Your task to perform on an android device: star an email in the gmail app Image 0: 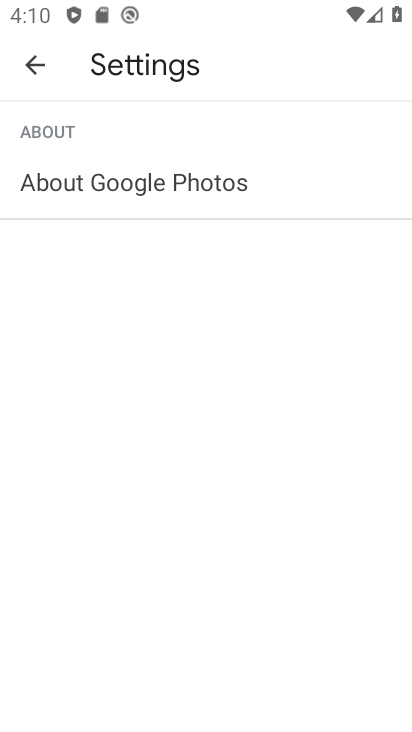
Step 0: press home button
Your task to perform on an android device: star an email in the gmail app Image 1: 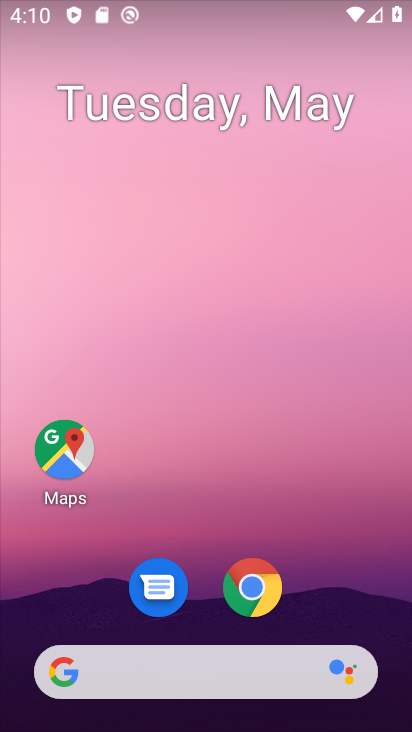
Step 1: drag from (373, 602) to (386, 288)
Your task to perform on an android device: star an email in the gmail app Image 2: 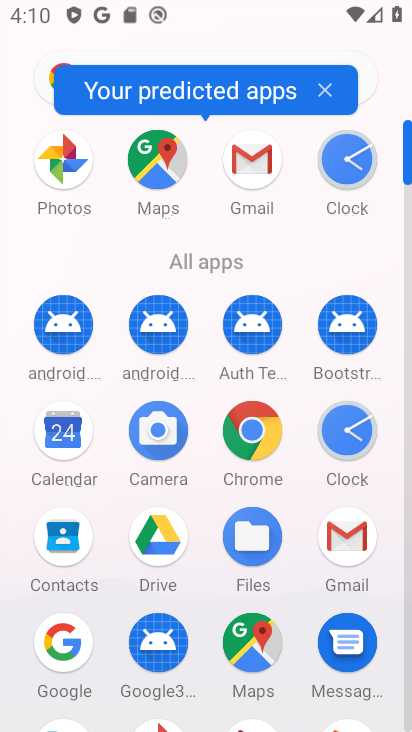
Step 2: click (349, 538)
Your task to perform on an android device: star an email in the gmail app Image 3: 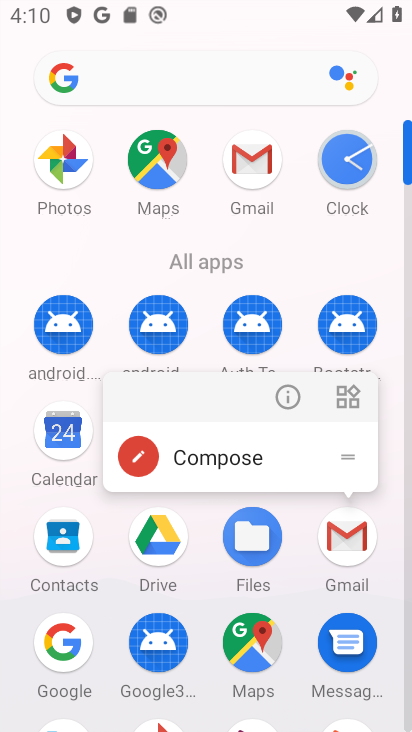
Step 3: click (349, 538)
Your task to perform on an android device: star an email in the gmail app Image 4: 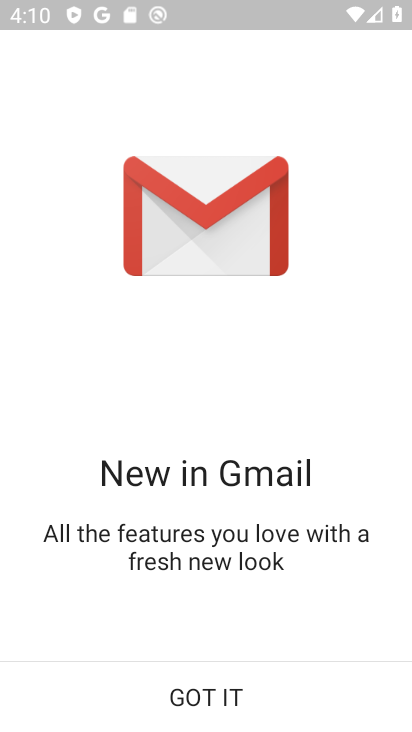
Step 4: click (306, 698)
Your task to perform on an android device: star an email in the gmail app Image 5: 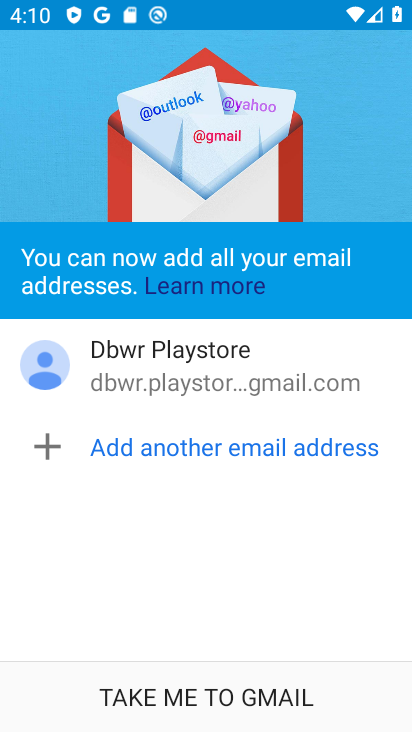
Step 5: click (312, 701)
Your task to perform on an android device: star an email in the gmail app Image 6: 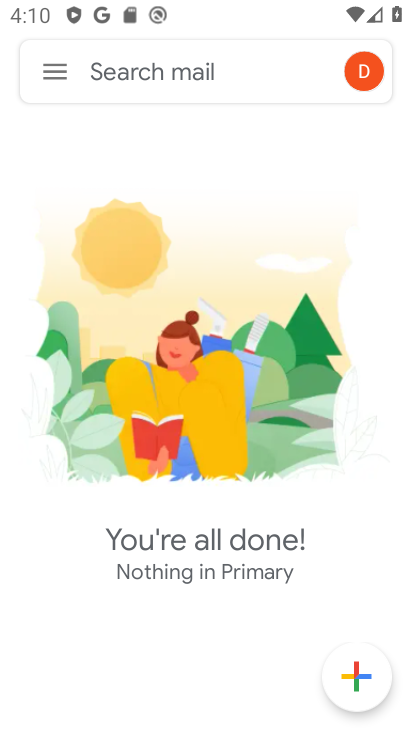
Step 6: task complete